Your task to perform on an android device: Search for seafood restaurants on Google Maps Image 0: 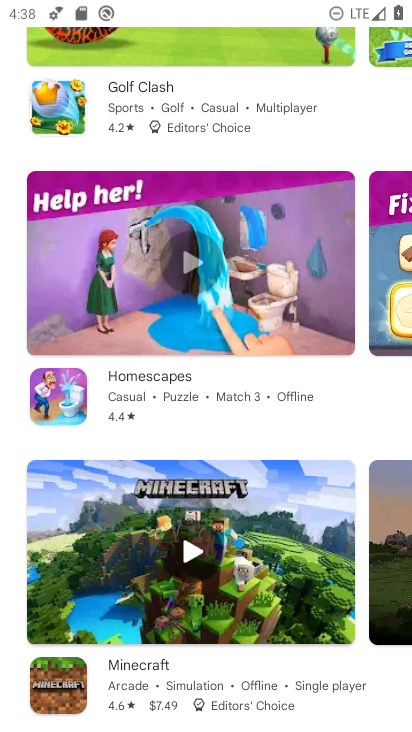
Step 0: press home button
Your task to perform on an android device: Search for seafood restaurants on Google Maps Image 1: 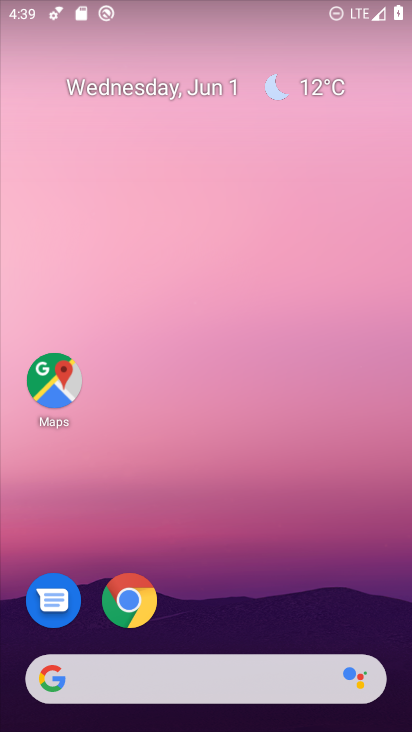
Step 1: click (55, 383)
Your task to perform on an android device: Search for seafood restaurants on Google Maps Image 2: 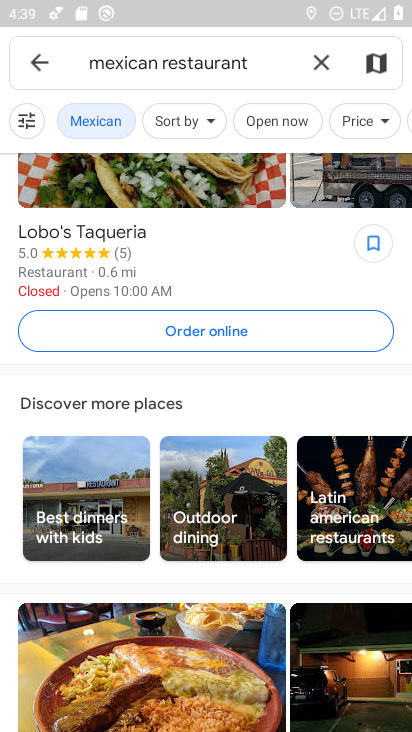
Step 2: click (322, 59)
Your task to perform on an android device: Search for seafood restaurants on Google Maps Image 3: 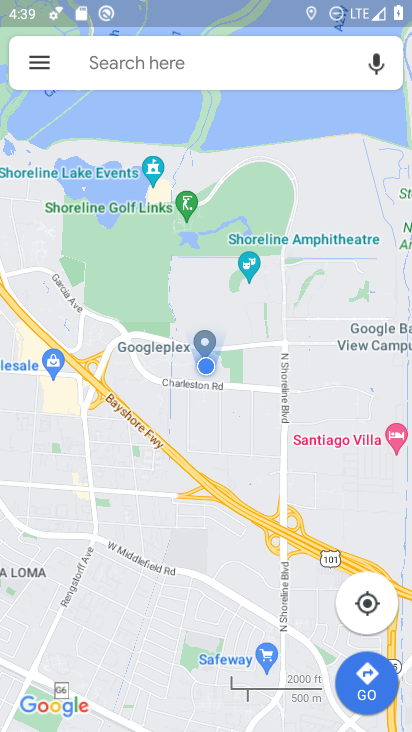
Step 3: click (127, 58)
Your task to perform on an android device: Search for seafood restaurants on Google Maps Image 4: 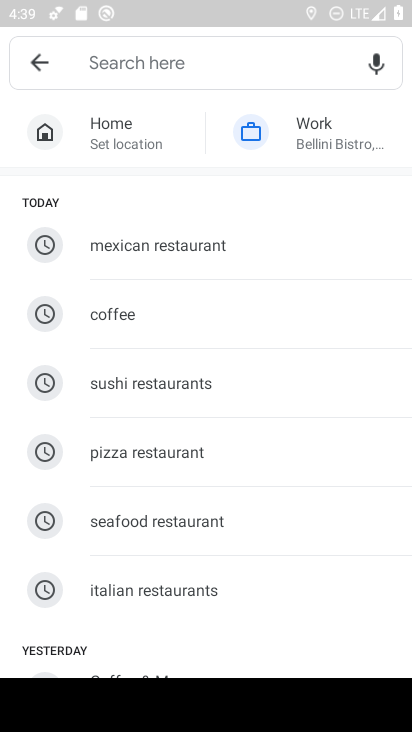
Step 4: type "seafood restaurants"
Your task to perform on an android device: Search for seafood restaurants on Google Maps Image 5: 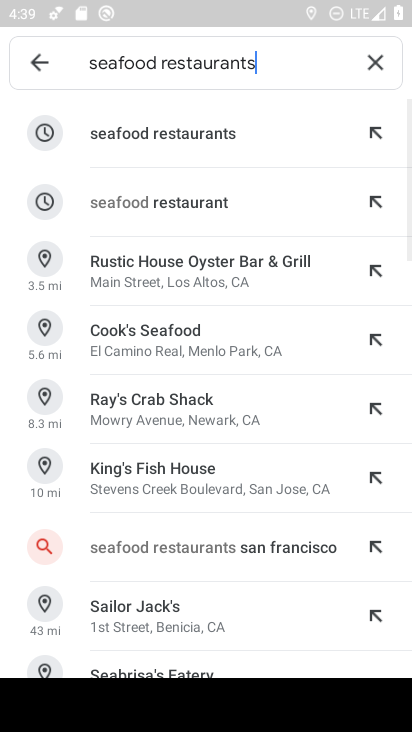
Step 5: click (168, 130)
Your task to perform on an android device: Search for seafood restaurants on Google Maps Image 6: 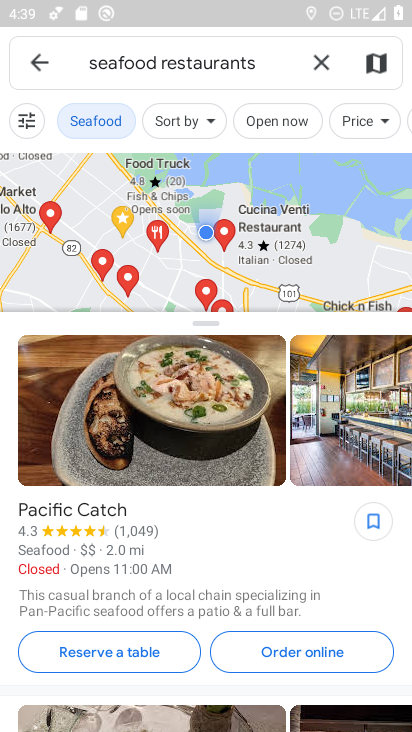
Step 6: task complete